Your task to perform on an android device: turn on sleep mode Image 0: 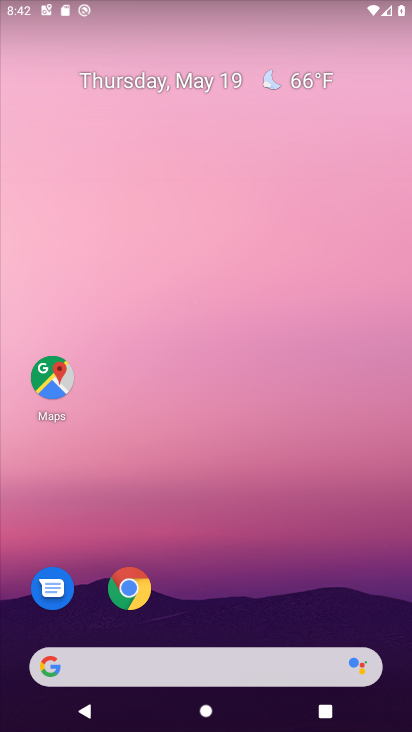
Step 0: drag from (364, 593) to (357, 255)
Your task to perform on an android device: turn on sleep mode Image 1: 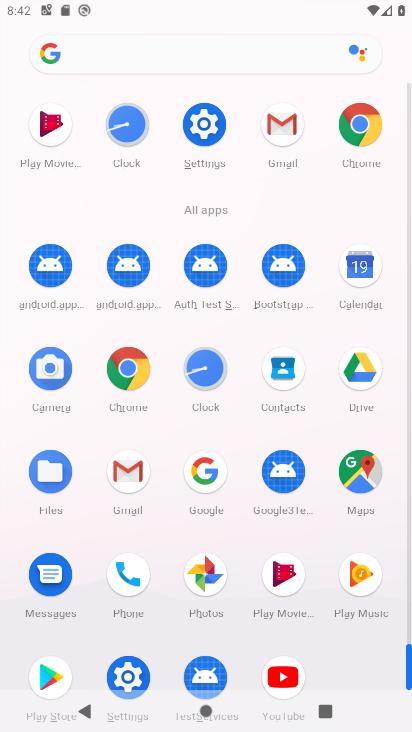
Step 1: click (215, 144)
Your task to perform on an android device: turn on sleep mode Image 2: 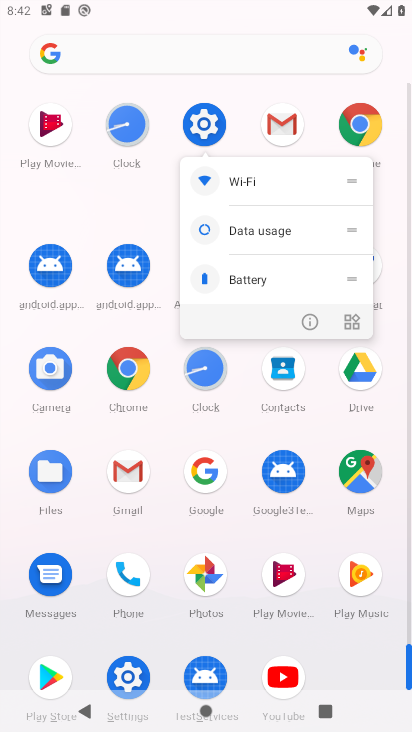
Step 2: click (215, 144)
Your task to perform on an android device: turn on sleep mode Image 3: 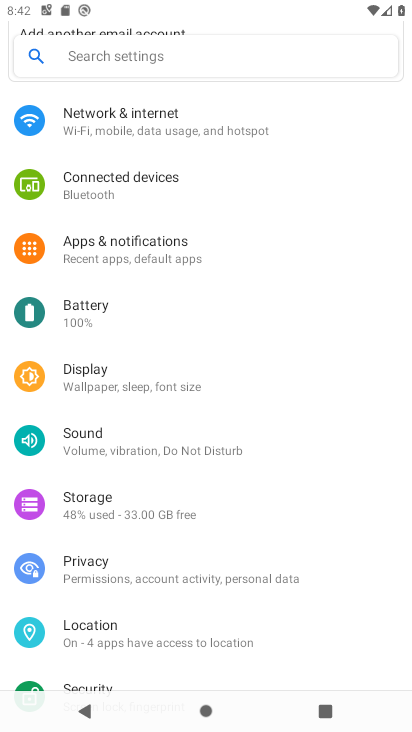
Step 3: drag from (343, 436) to (343, 388)
Your task to perform on an android device: turn on sleep mode Image 4: 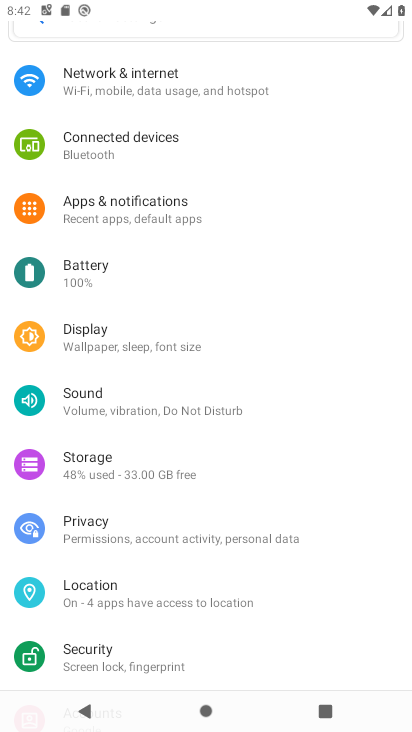
Step 4: drag from (348, 489) to (349, 420)
Your task to perform on an android device: turn on sleep mode Image 5: 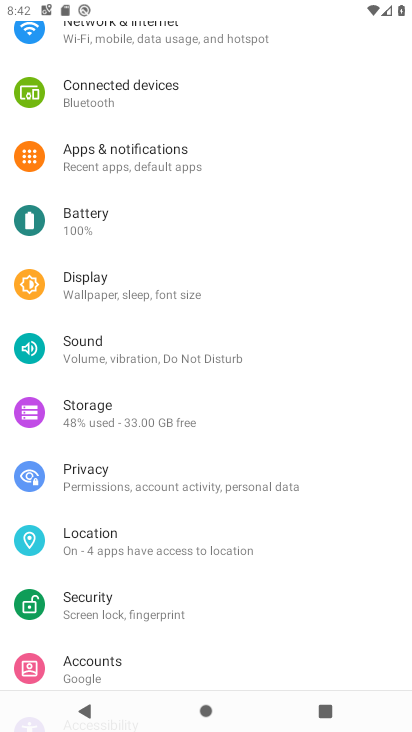
Step 5: drag from (345, 512) to (348, 415)
Your task to perform on an android device: turn on sleep mode Image 6: 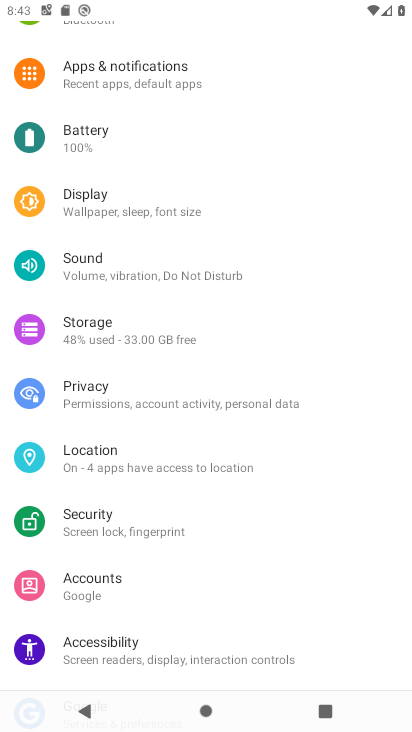
Step 6: drag from (351, 545) to (347, 497)
Your task to perform on an android device: turn on sleep mode Image 7: 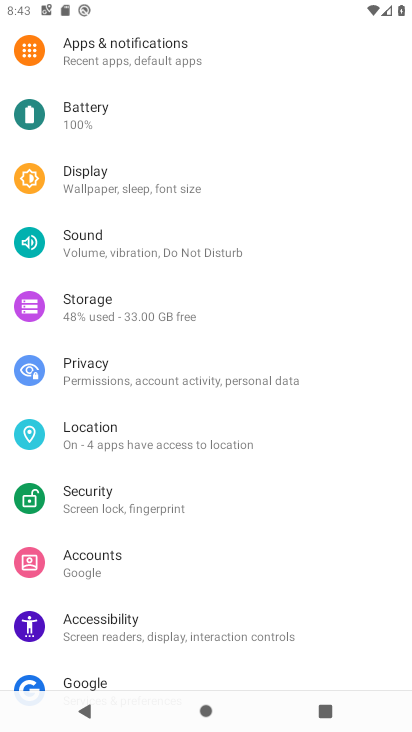
Step 7: drag from (354, 581) to (353, 452)
Your task to perform on an android device: turn on sleep mode Image 8: 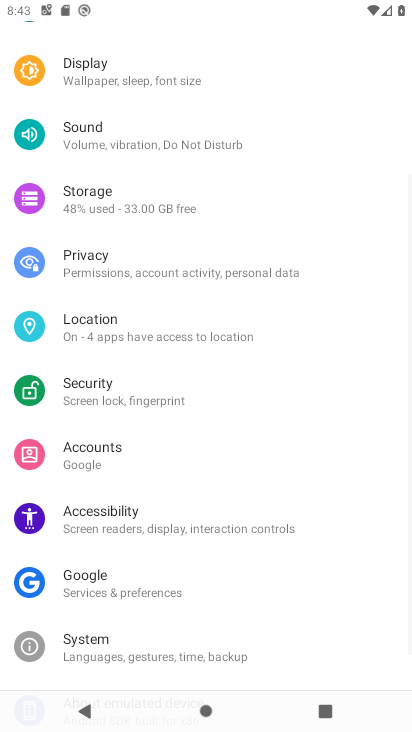
Step 8: drag from (347, 613) to (353, 482)
Your task to perform on an android device: turn on sleep mode Image 9: 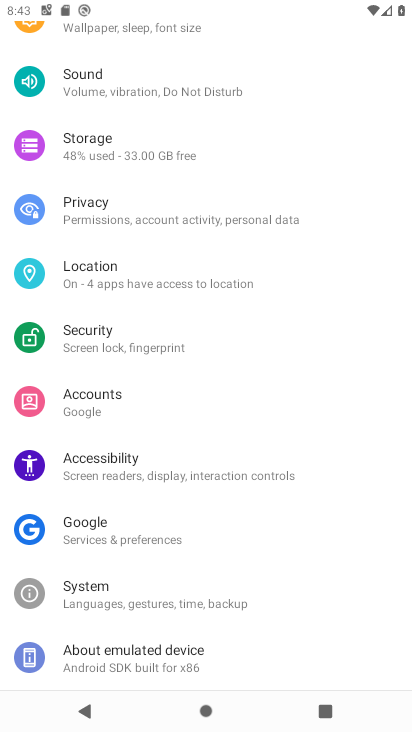
Step 9: drag from (348, 383) to (335, 478)
Your task to perform on an android device: turn on sleep mode Image 10: 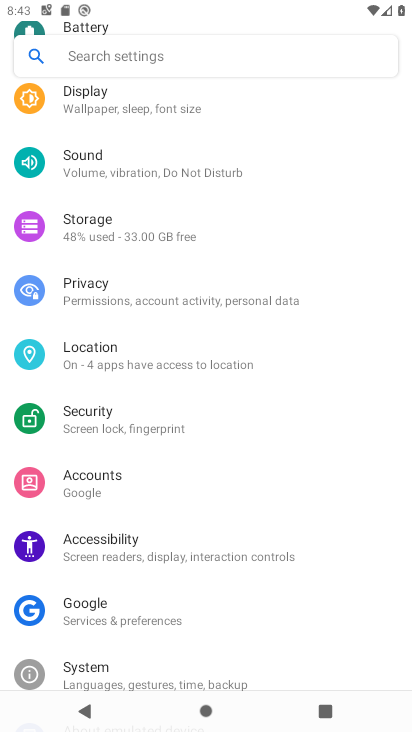
Step 10: drag from (341, 366) to (341, 424)
Your task to perform on an android device: turn on sleep mode Image 11: 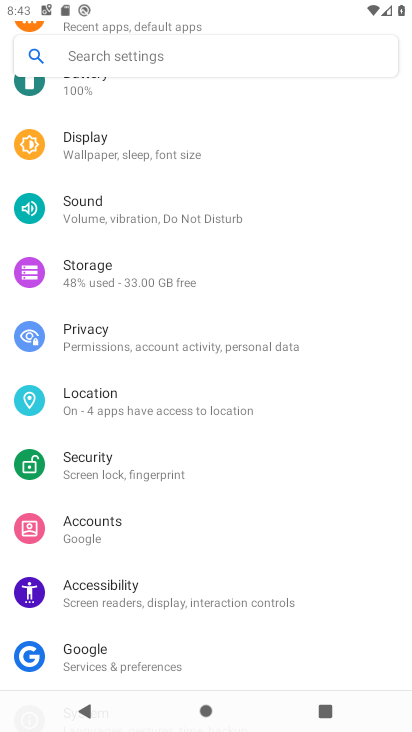
Step 11: drag from (344, 334) to (341, 406)
Your task to perform on an android device: turn on sleep mode Image 12: 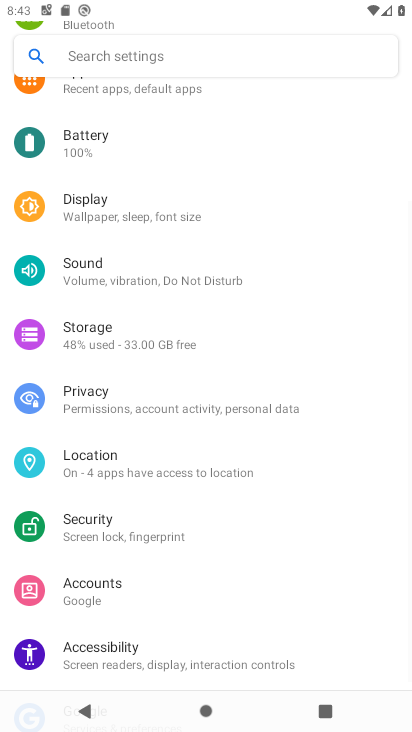
Step 12: drag from (343, 319) to (347, 396)
Your task to perform on an android device: turn on sleep mode Image 13: 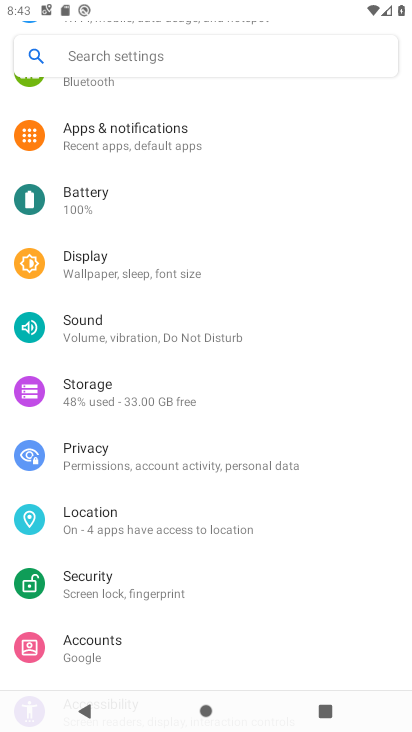
Step 13: drag from (348, 325) to (340, 403)
Your task to perform on an android device: turn on sleep mode Image 14: 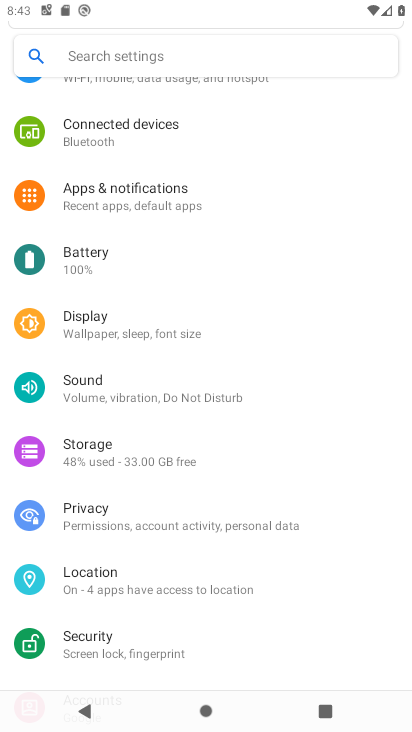
Step 14: drag from (349, 325) to (339, 409)
Your task to perform on an android device: turn on sleep mode Image 15: 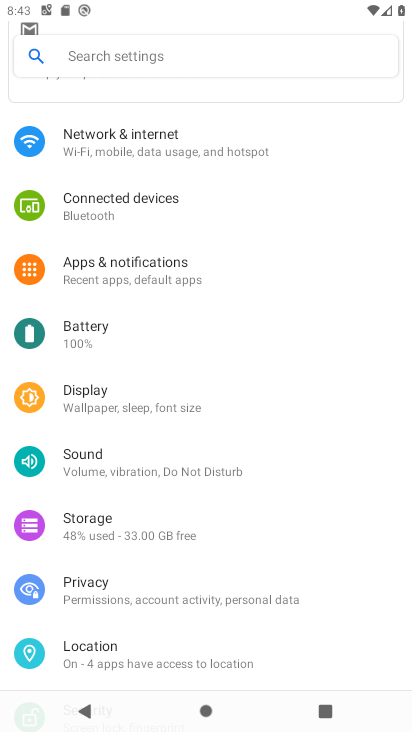
Step 15: drag from (329, 332) to (318, 500)
Your task to perform on an android device: turn on sleep mode Image 16: 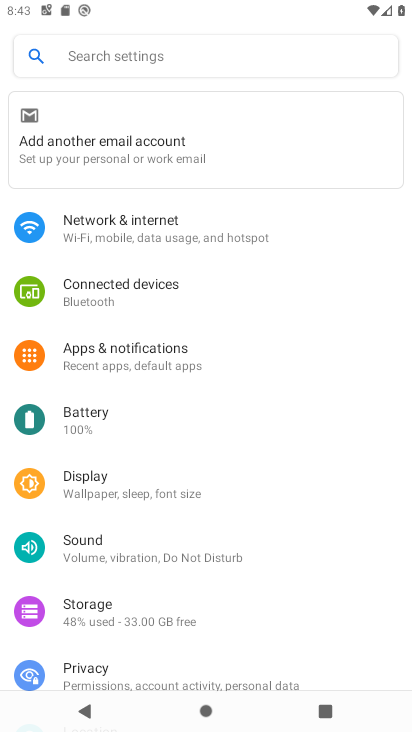
Step 16: drag from (316, 435) to (313, 510)
Your task to perform on an android device: turn on sleep mode Image 17: 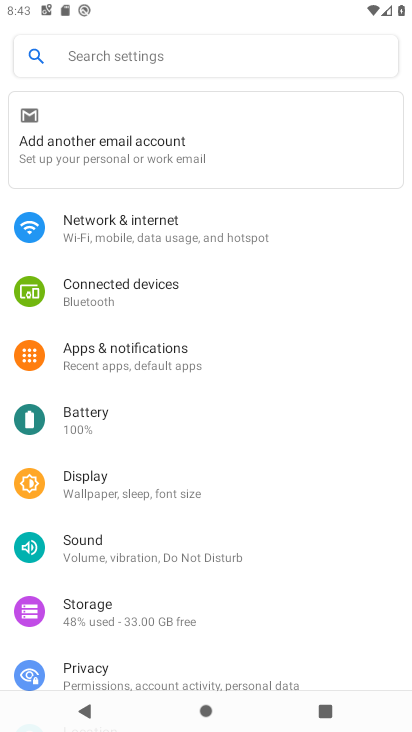
Step 17: click (170, 504)
Your task to perform on an android device: turn on sleep mode Image 18: 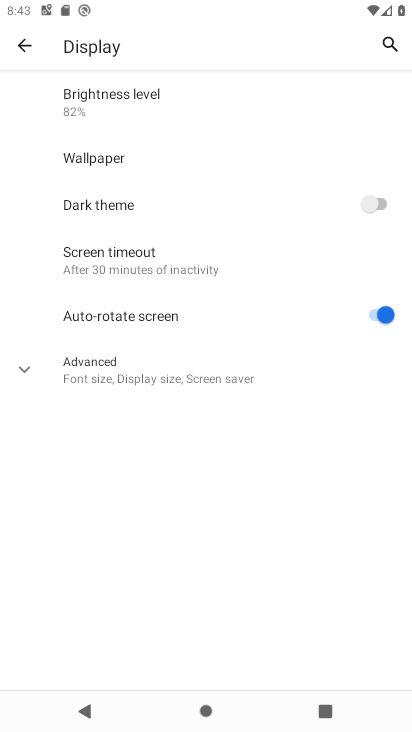
Step 18: click (233, 374)
Your task to perform on an android device: turn on sleep mode Image 19: 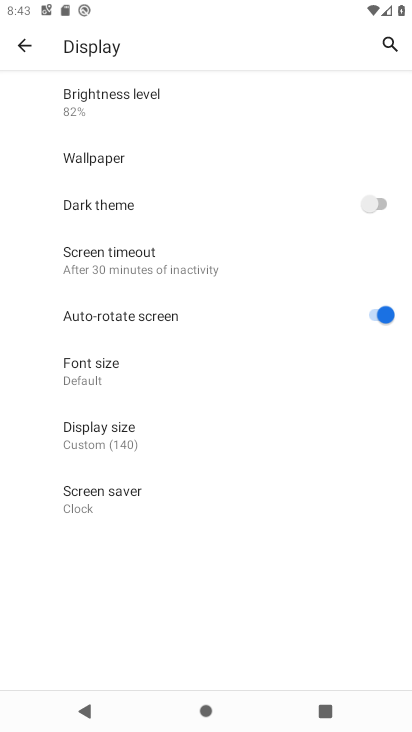
Step 19: task complete